Your task to perform on an android device: Open Youtube and go to "Your channel" Image 0: 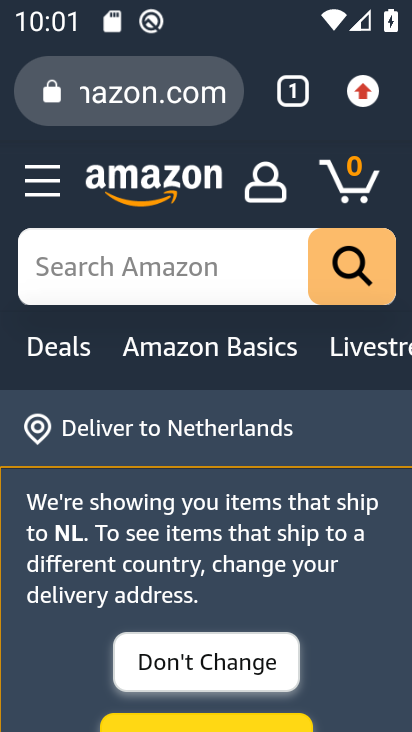
Step 0: press home button
Your task to perform on an android device: Open Youtube and go to "Your channel" Image 1: 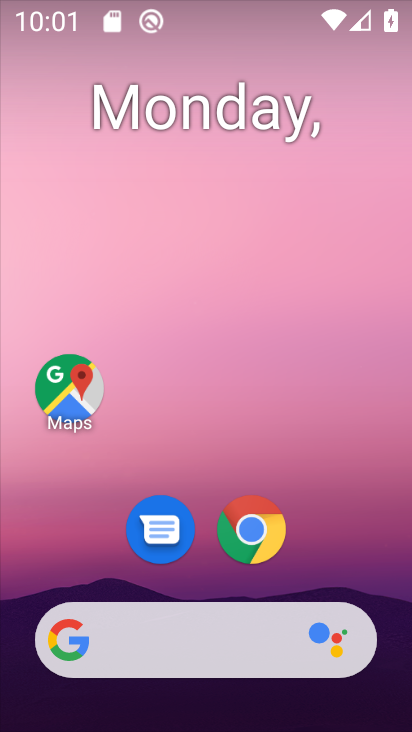
Step 1: drag from (219, 503) to (290, 140)
Your task to perform on an android device: Open Youtube and go to "Your channel" Image 2: 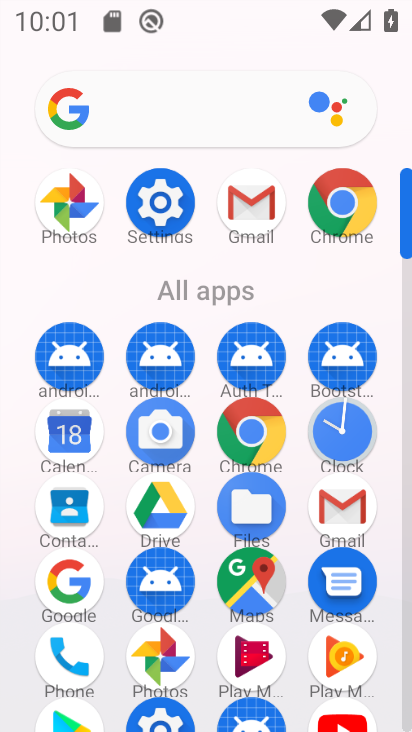
Step 2: click (333, 720)
Your task to perform on an android device: Open Youtube and go to "Your channel" Image 3: 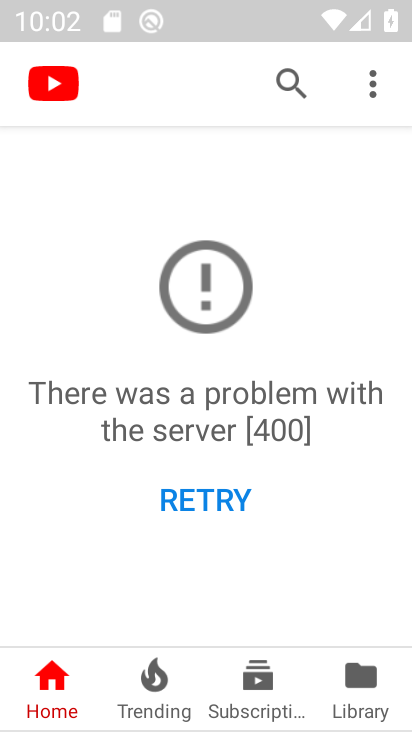
Step 3: click (373, 92)
Your task to perform on an android device: Open Youtube and go to "Your channel" Image 4: 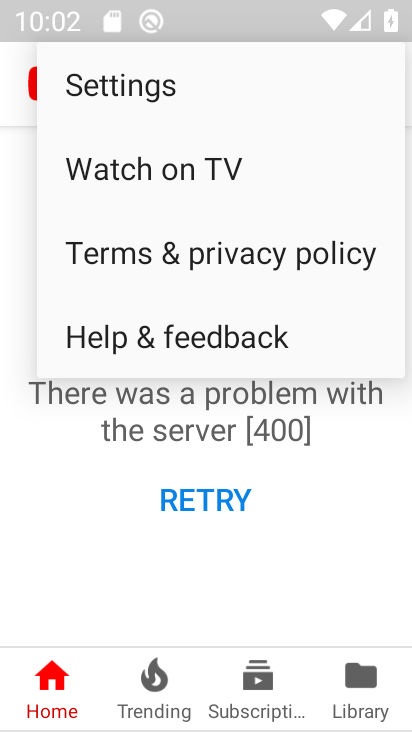
Step 4: click (178, 473)
Your task to perform on an android device: Open Youtube and go to "Your channel" Image 5: 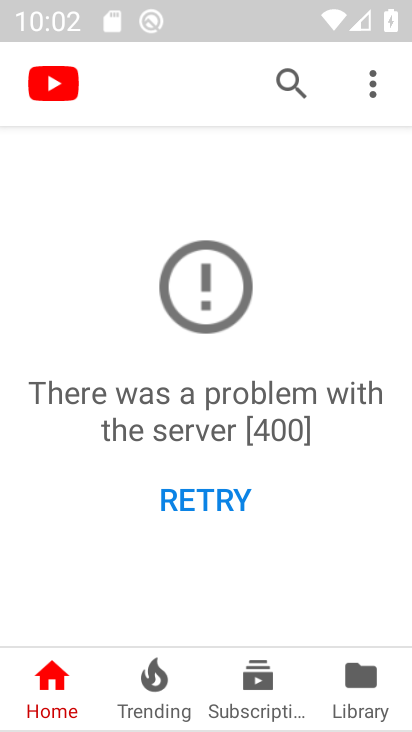
Step 5: click (364, 690)
Your task to perform on an android device: Open Youtube and go to "Your channel" Image 6: 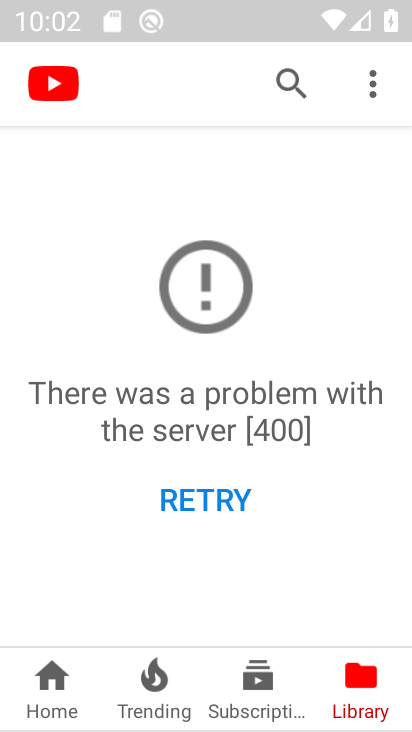
Step 6: click (364, 690)
Your task to perform on an android device: Open Youtube and go to "Your channel" Image 7: 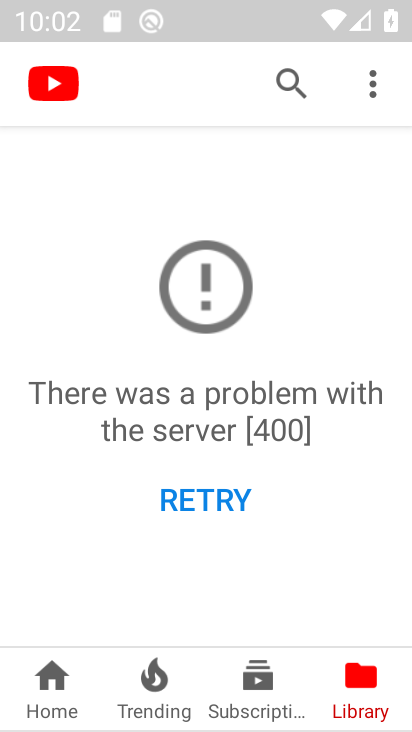
Step 7: click (364, 690)
Your task to perform on an android device: Open Youtube and go to "Your channel" Image 8: 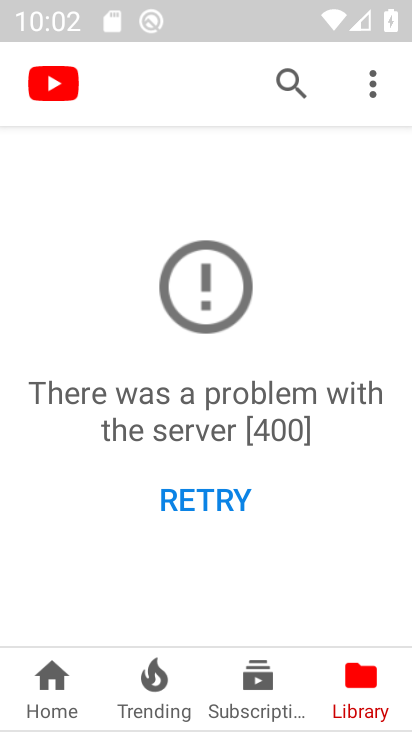
Step 8: click (219, 493)
Your task to perform on an android device: Open Youtube and go to "Your channel" Image 9: 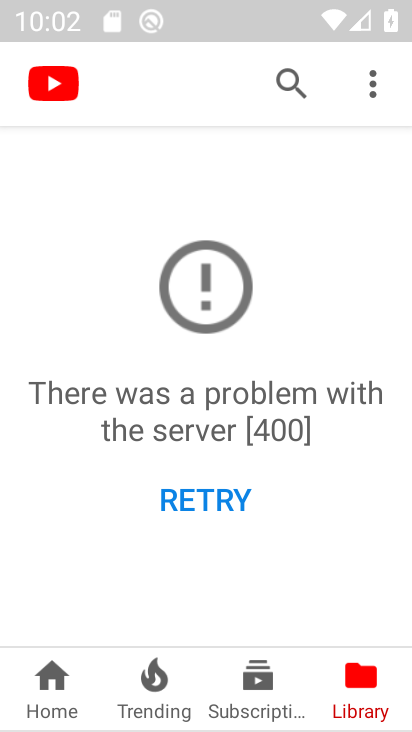
Step 9: task complete